Your task to perform on an android device: Turn off the flashlight Image 0: 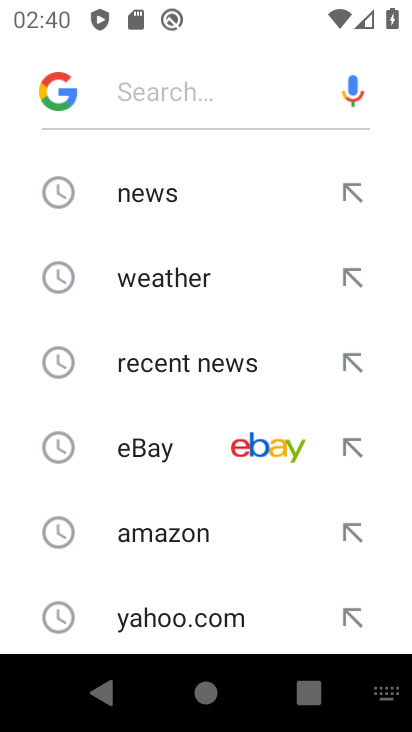
Step 0: press home button
Your task to perform on an android device: Turn off the flashlight Image 1: 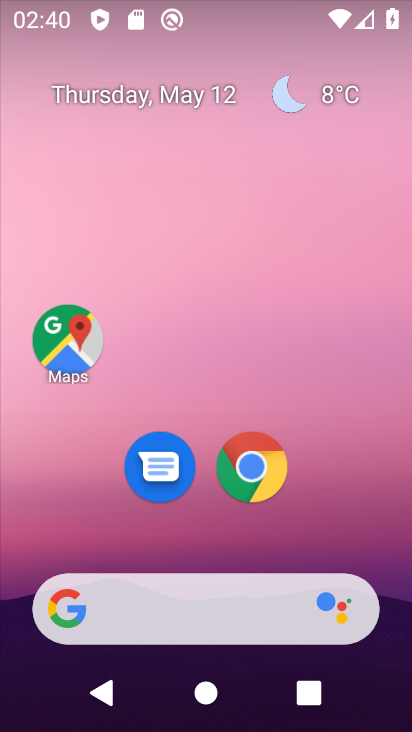
Step 1: drag from (368, 13) to (330, 440)
Your task to perform on an android device: Turn off the flashlight Image 2: 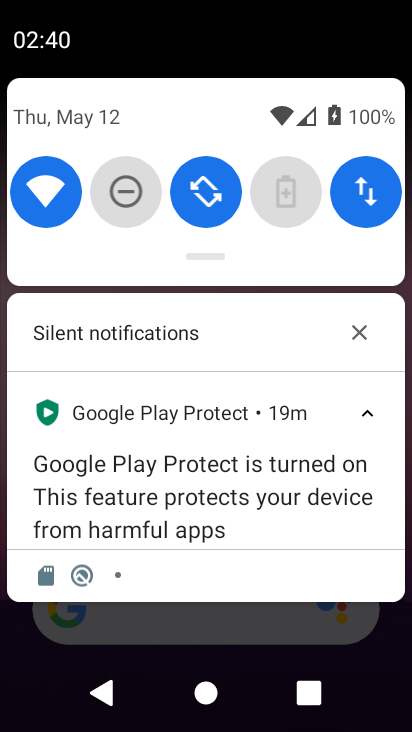
Step 2: drag from (257, 258) to (263, 622)
Your task to perform on an android device: Turn off the flashlight Image 3: 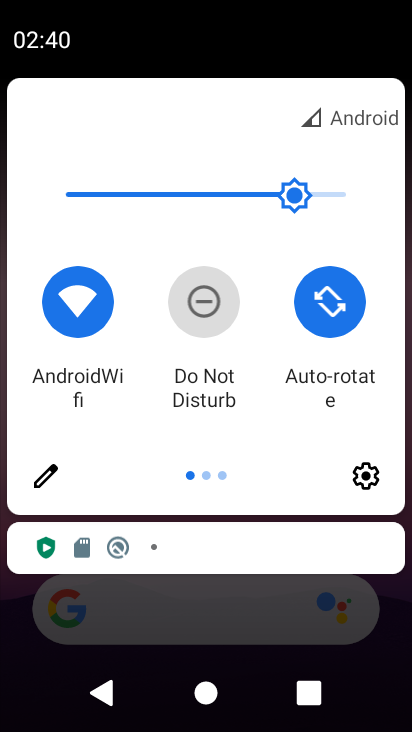
Step 3: click (48, 478)
Your task to perform on an android device: Turn off the flashlight Image 4: 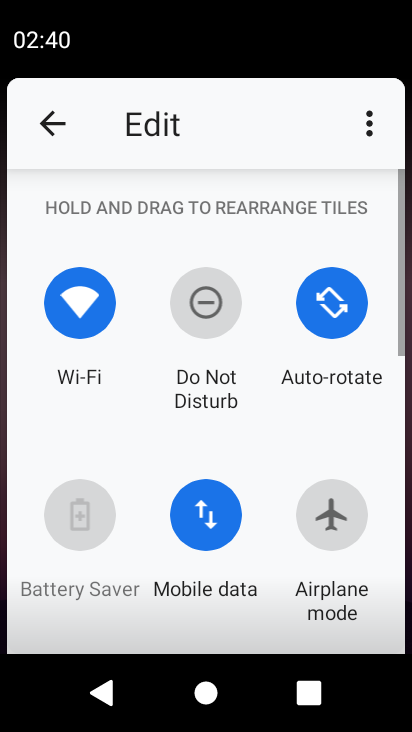
Step 4: task complete